Your task to perform on an android device: change text size in settings app Image 0: 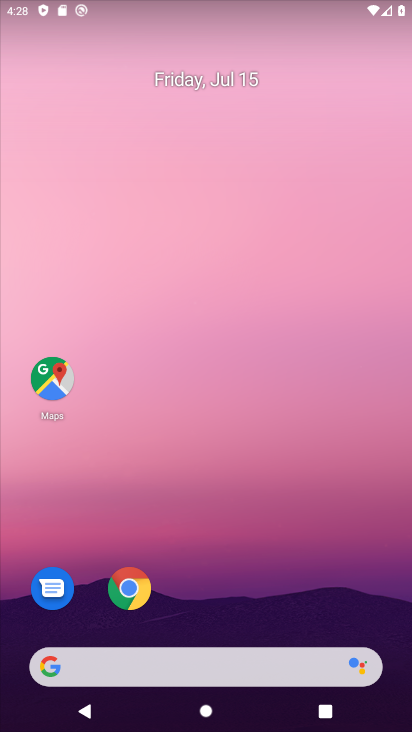
Step 0: press home button
Your task to perform on an android device: change text size in settings app Image 1: 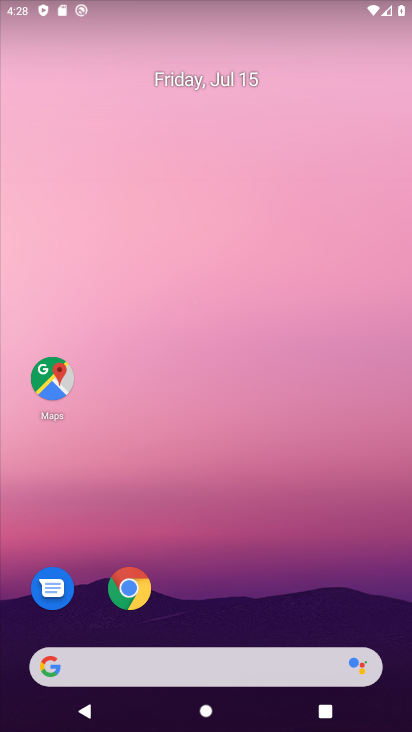
Step 1: drag from (21, 625) to (218, 100)
Your task to perform on an android device: change text size in settings app Image 2: 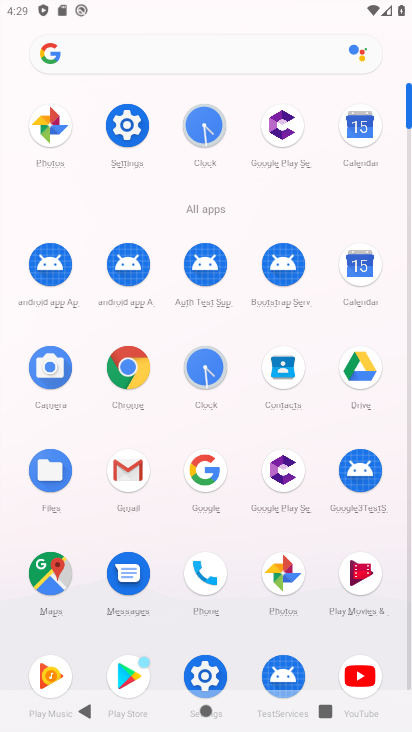
Step 2: click (135, 118)
Your task to perform on an android device: change text size in settings app Image 3: 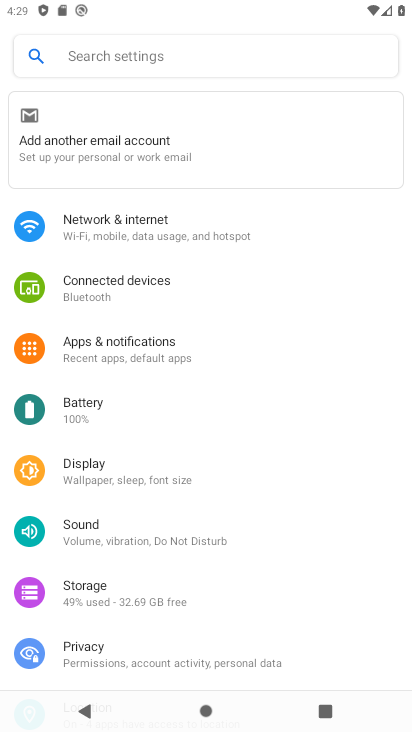
Step 3: task complete